Your task to perform on an android device: Go to accessibility settings Image 0: 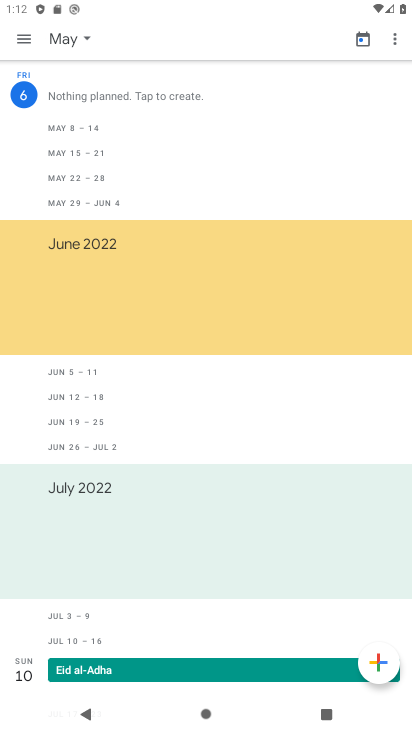
Step 0: press home button
Your task to perform on an android device: Go to accessibility settings Image 1: 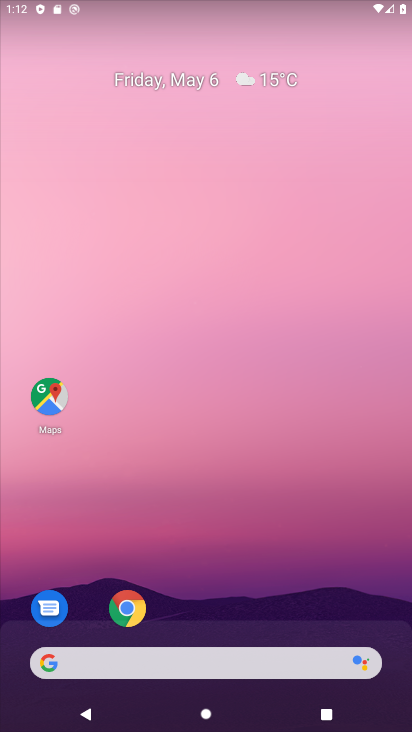
Step 1: drag from (238, 604) to (237, 18)
Your task to perform on an android device: Go to accessibility settings Image 2: 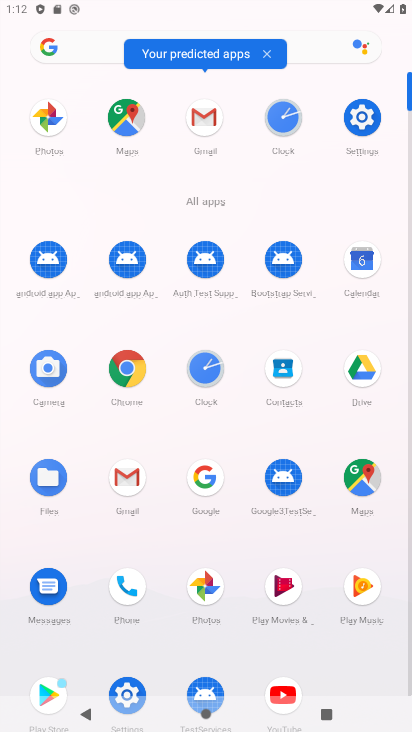
Step 2: click (133, 680)
Your task to perform on an android device: Go to accessibility settings Image 3: 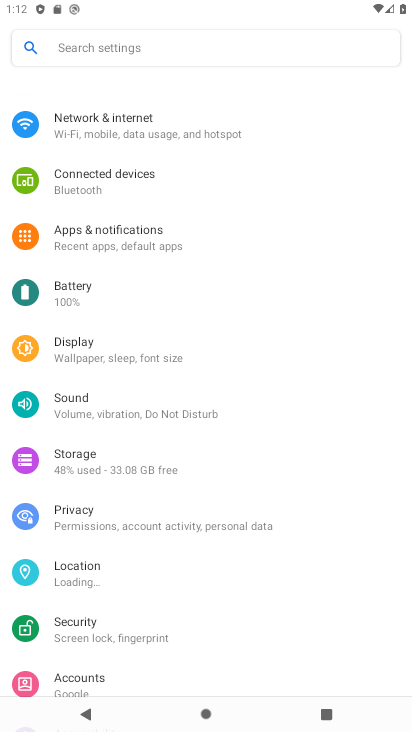
Step 3: drag from (210, 620) to (210, 148)
Your task to perform on an android device: Go to accessibility settings Image 4: 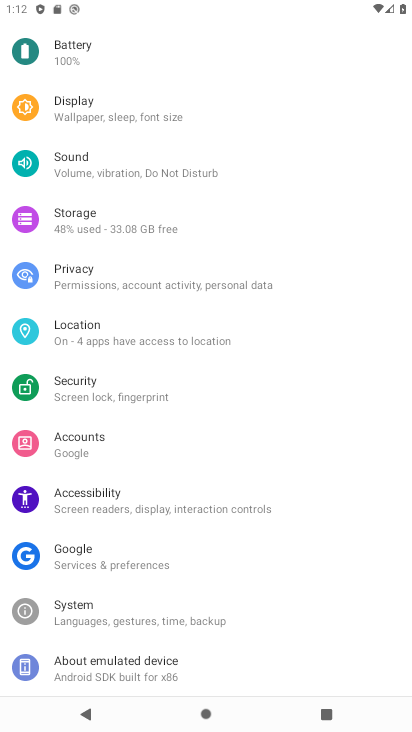
Step 4: click (132, 491)
Your task to perform on an android device: Go to accessibility settings Image 5: 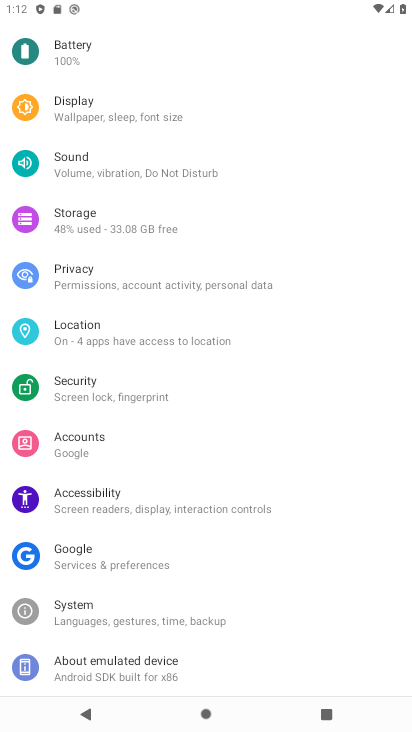
Step 5: click (132, 491)
Your task to perform on an android device: Go to accessibility settings Image 6: 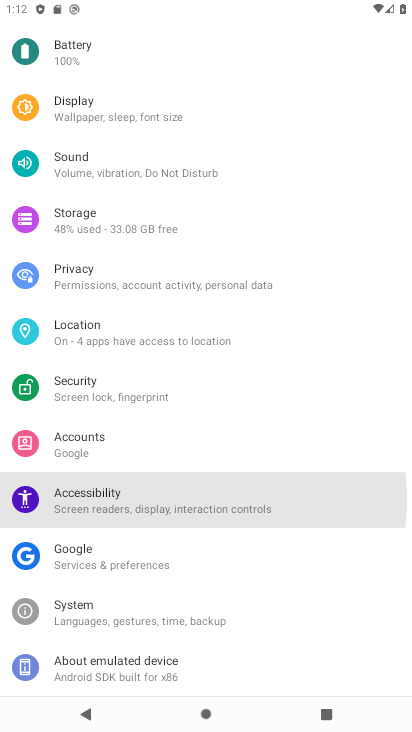
Step 6: click (132, 491)
Your task to perform on an android device: Go to accessibility settings Image 7: 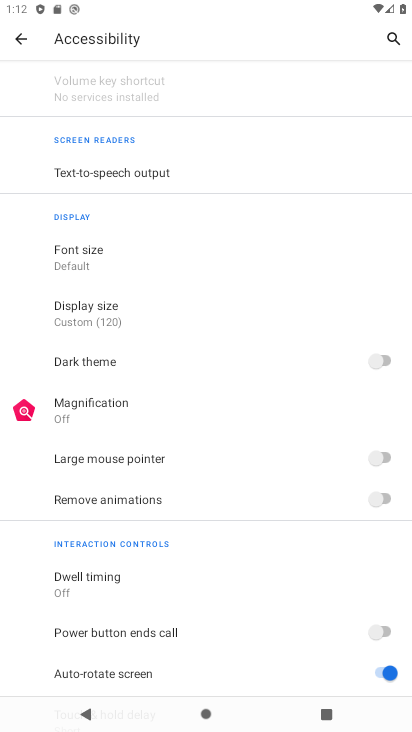
Step 7: task complete